Your task to perform on an android device: See recent photos Image 0: 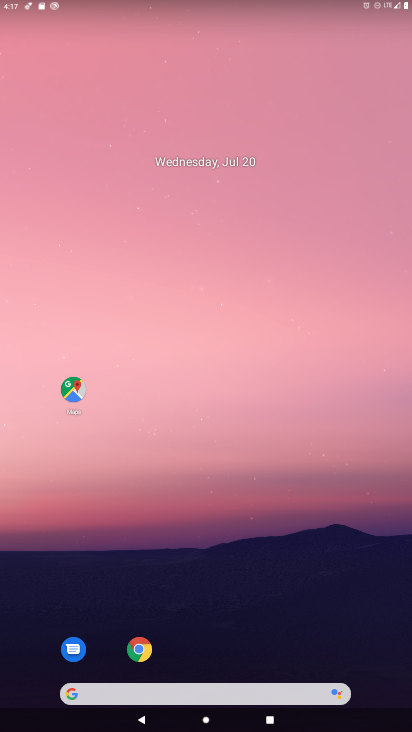
Step 0: drag from (182, 709) to (282, 21)
Your task to perform on an android device: See recent photos Image 1: 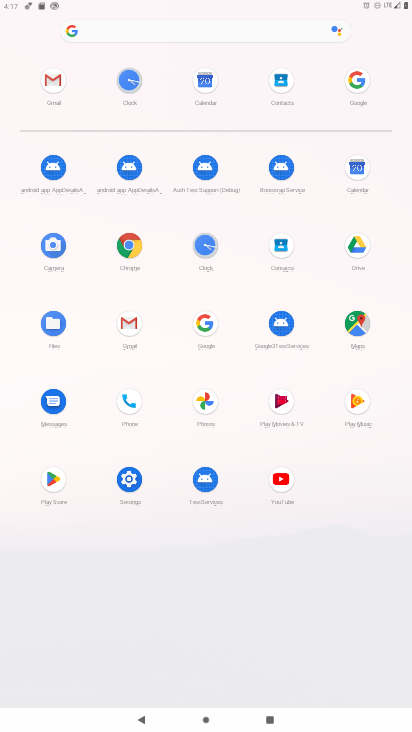
Step 1: click (202, 398)
Your task to perform on an android device: See recent photos Image 2: 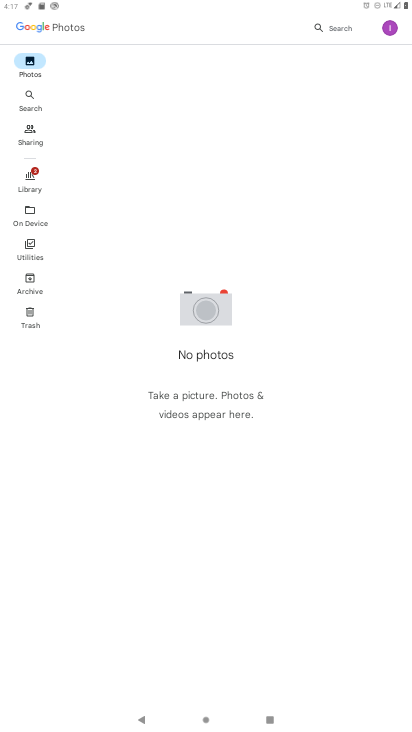
Step 2: click (35, 313)
Your task to perform on an android device: See recent photos Image 3: 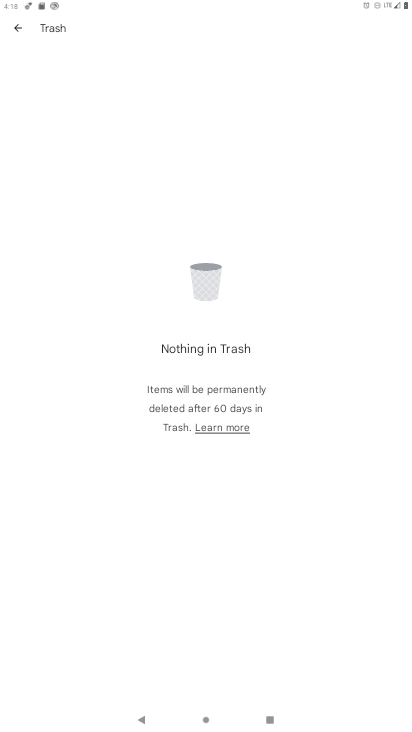
Step 3: press back button
Your task to perform on an android device: See recent photos Image 4: 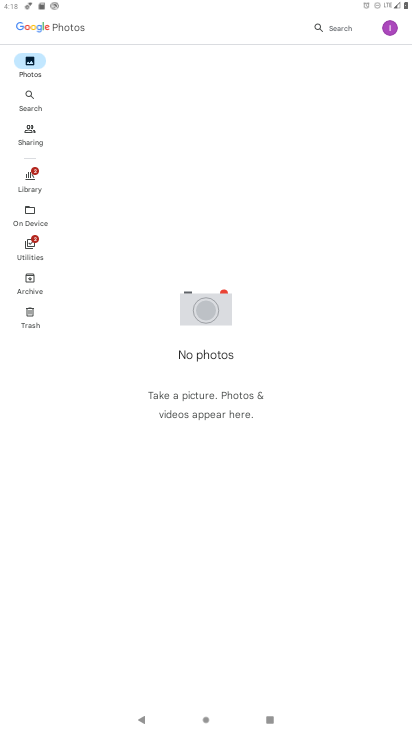
Step 4: click (29, 100)
Your task to perform on an android device: See recent photos Image 5: 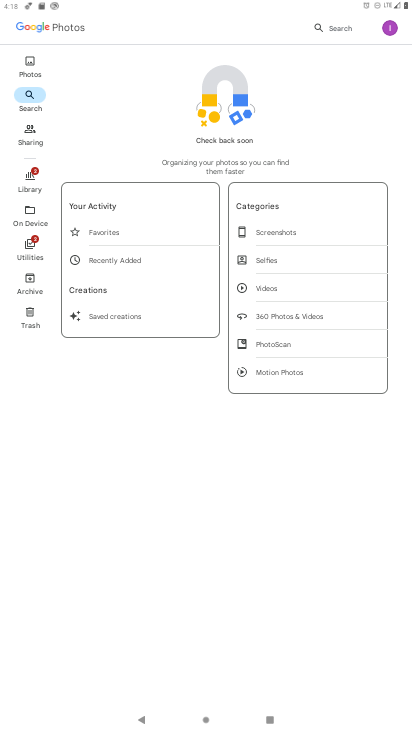
Step 5: click (118, 236)
Your task to perform on an android device: See recent photos Image 6: 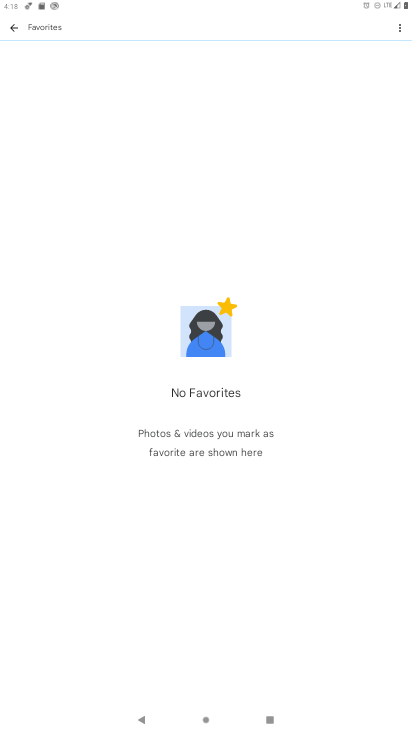
Step 6: task complete